Your task to perform on an android device: turn smart compose on in the gmail app Image 0: 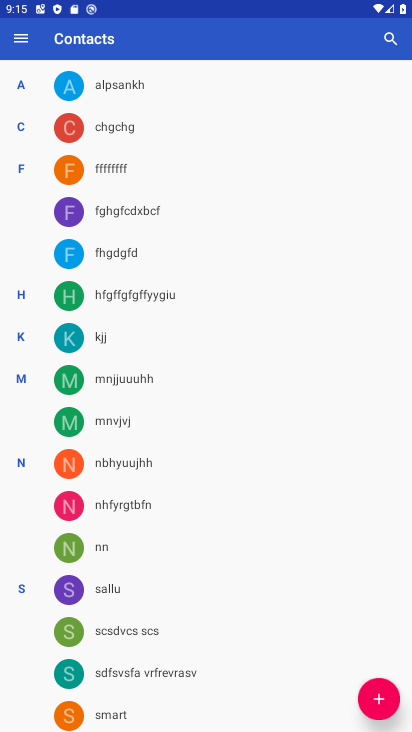
Step 0: press home button
Your task to perform on an android device: turn smart compose on in the gmail app Image 1: 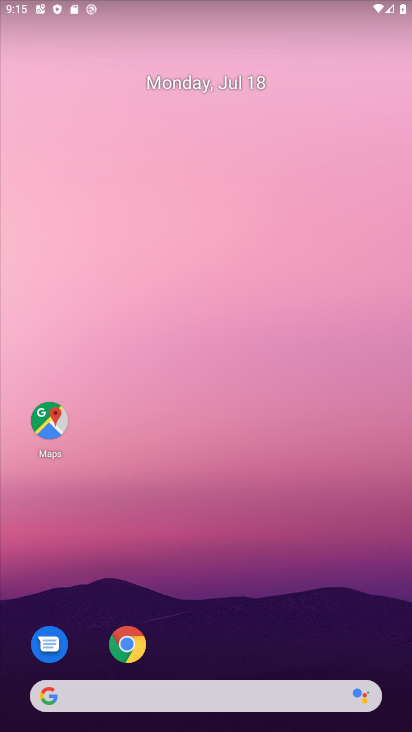
Step 1: drag from (215, 656) to (184, 21)
Your task to perform on an android device: turn smart compose on in the gmail app Image 2: 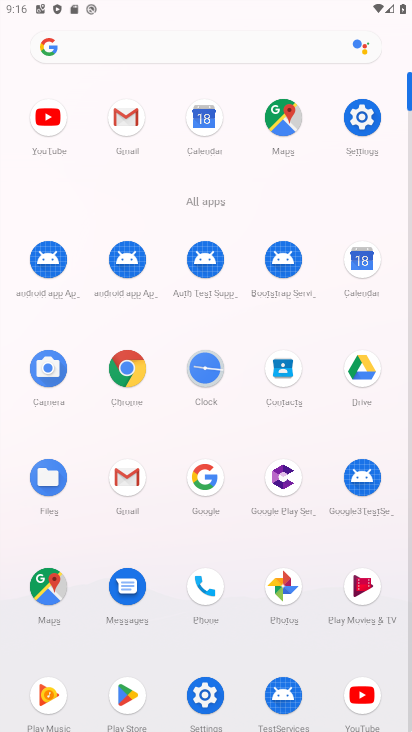
Step 2: click (123, 469)
Your task to perform on an android device: turn smart compose on in the gmail app Image 3: 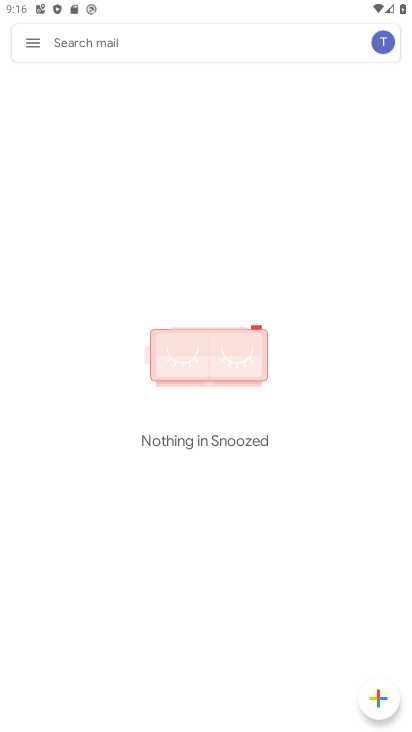
Step 3: click (27, 56)
Your task to perform on an android device: turn smart compose on in the gmail app Image 4: 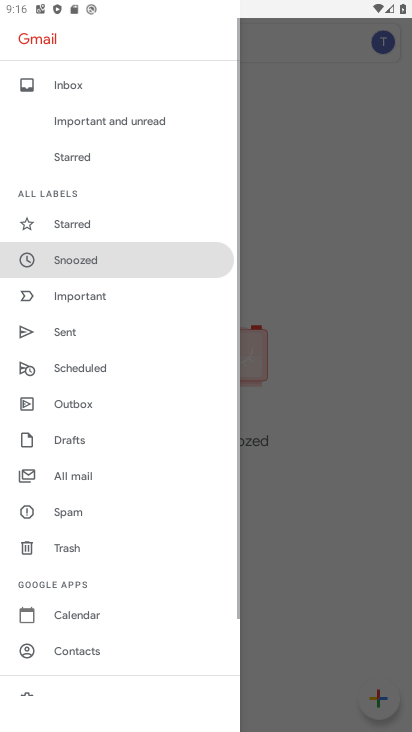
Step 4: drag from (80, 615) to (71, 210)
Your task to perform on an android device: turn smart compose on in the gmail app Image 5: 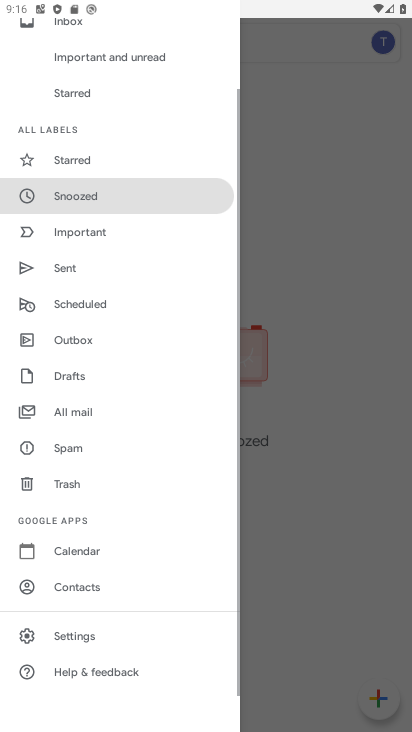
Step 5: click (70, 617)
Your task to perform on an android device: turn smart compose on in the gmail app Image 6: 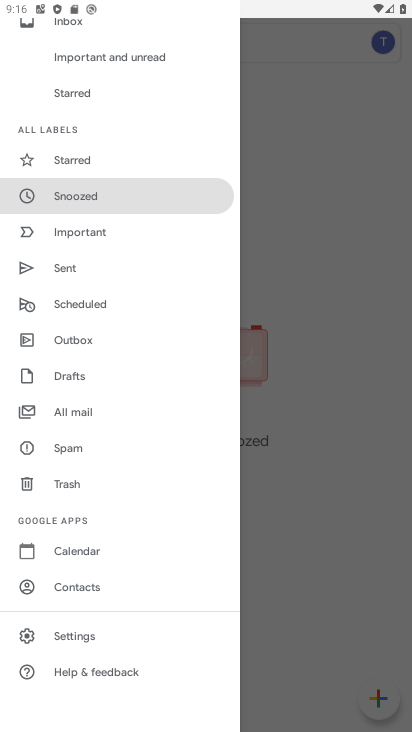
Step 6: click (69, 626)
Your task to perform on an android device: turn smart compose on in the gmail app Image 7: 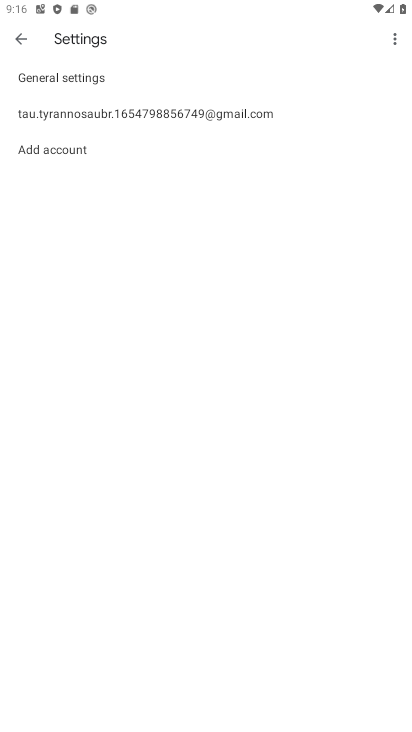
Step 7: click (48, 110)
Your task to perform on an android device: turn smart compose on in the gmail app Image 8: 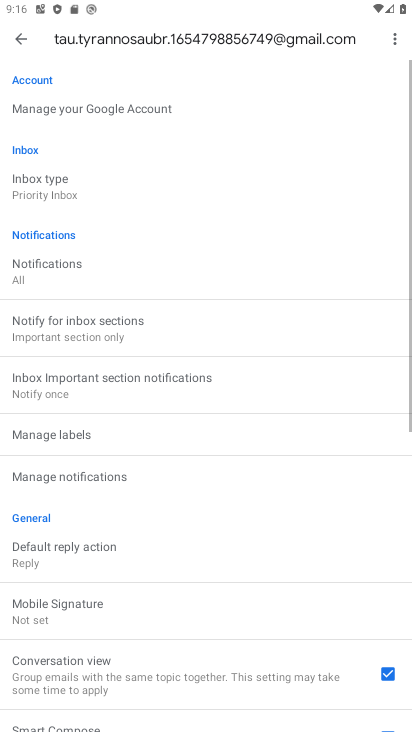
Step 8: task complete